Your task to perform on an android device: Go to display settings Image 0: 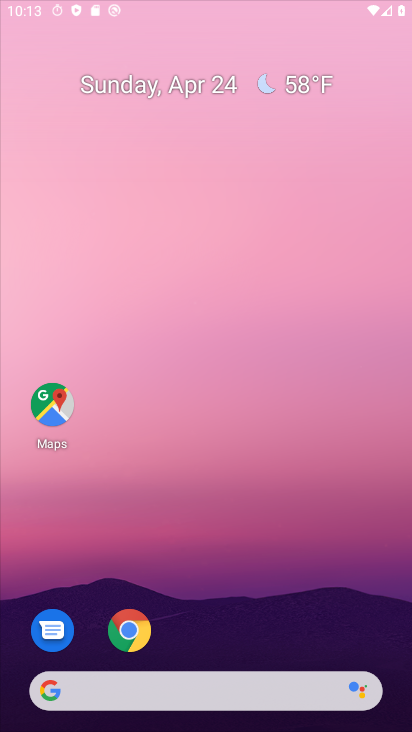
Step 0: drag from (270, 421) to (291, 255)
Your task to perform on an android device: Go to display settings Image 1: 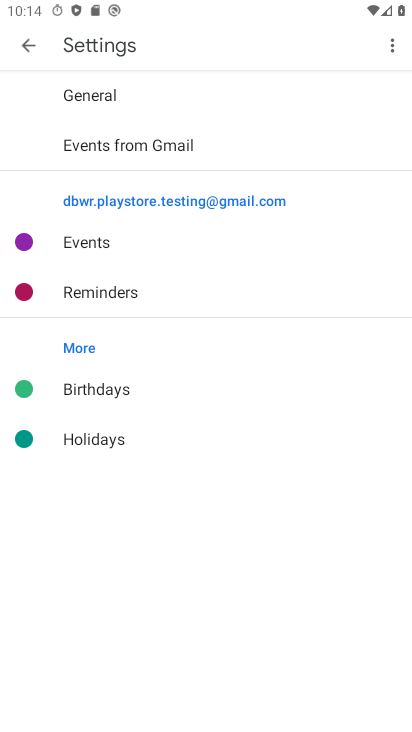
Step 1: press home button
Your task to perform on an android device: Go to display settings Image 2: 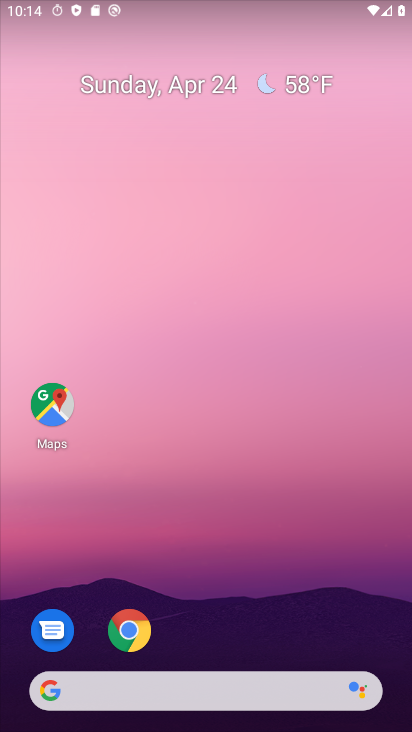
Step 2: drag from (287, 660) to (405, 391)
Your task to perform on an android device: Go to display settings Image 3: 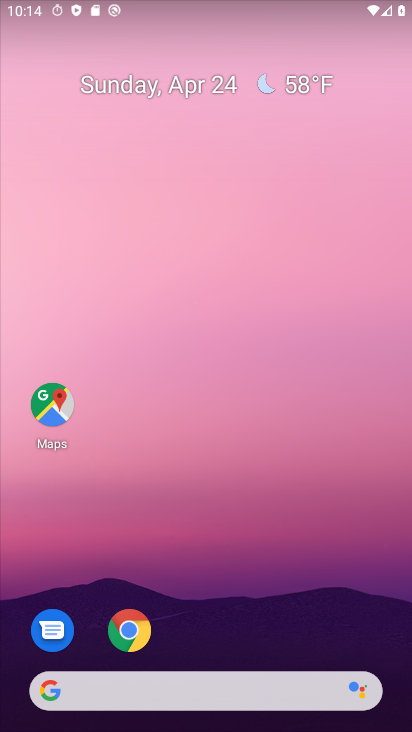
Step 3: drag from (250, 564) to (373, 94)
Your task to perform on an android device: Go to display settings Image 4: 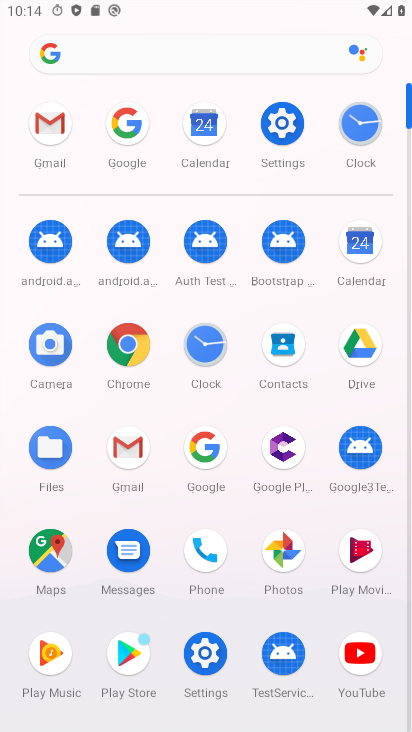
Step 4: click (293, 143)
Your task to perform on an android device: Go to display settings Image 5: 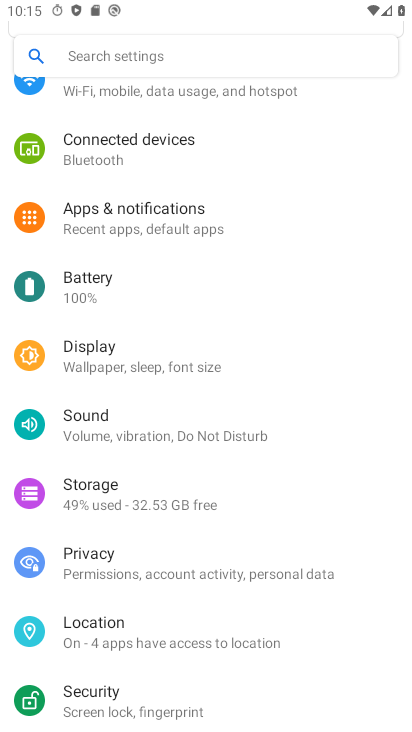
Step 5: click (123, 356)
Your task to perform on an android device: Go to display settings Image 6: 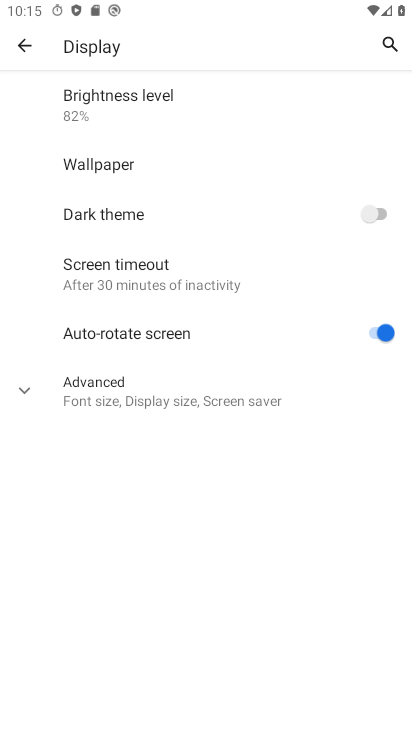
Step 6: click (170, 397)
Your task to perform on an android device: Go to display settings Image 7: 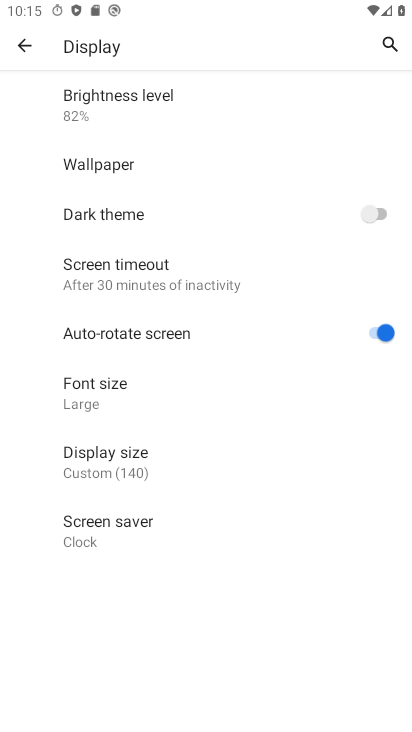
Step 7: task complete